Your task to perform on an android device: Open the map Image 0: 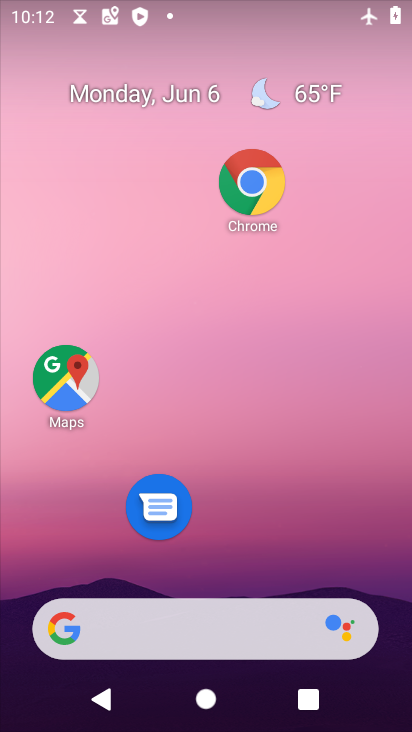
Step 0: click (74, 362)
Your task to perform on an android device: Open the map Image 1: 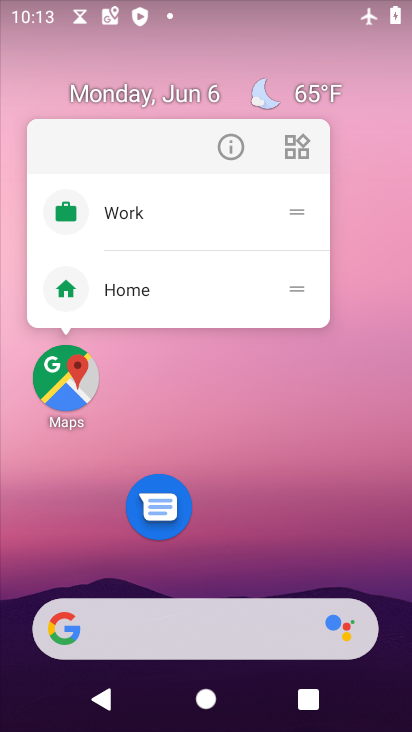
Step 1: click (62, 381)
Your task to perform on an android device: Open the map Image 2: 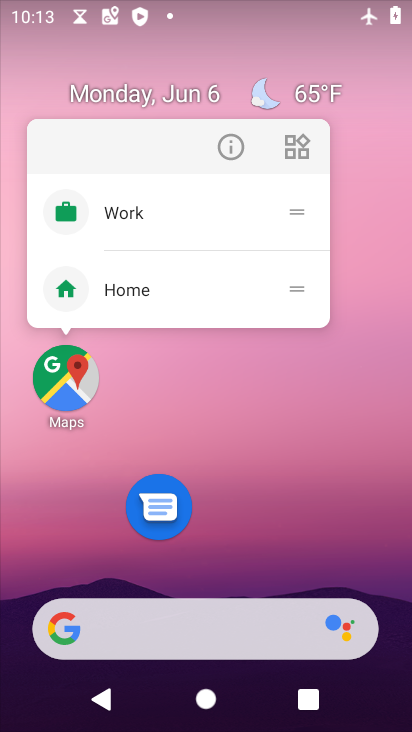
Step 2: click (55, 378)
Your task to perform on an android device: Open the map Image 3: 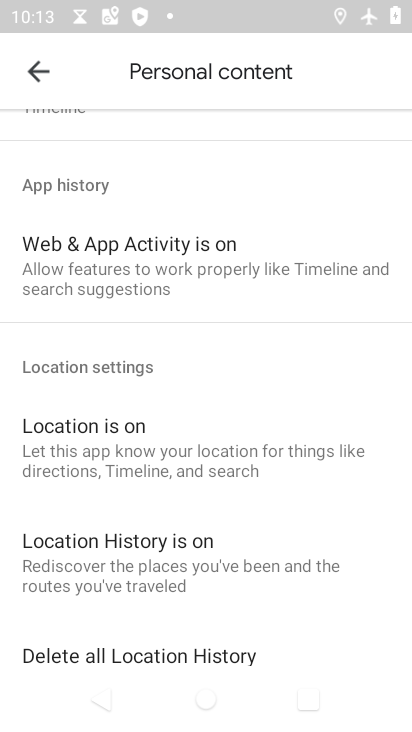
Step 3: click (42, 71)
Your task to perform on an android device: Open the map Image 4: 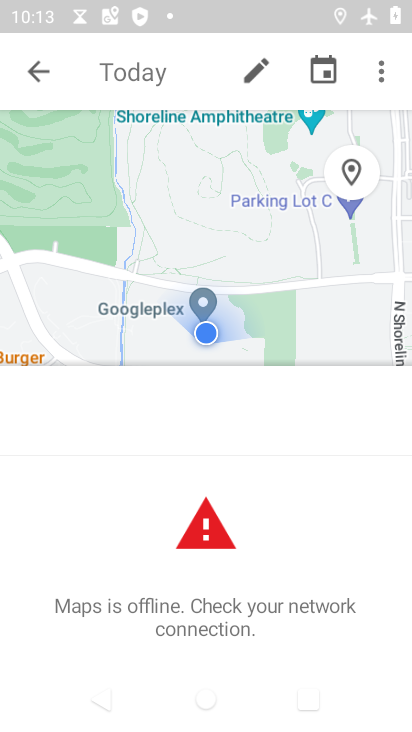
Step 4: click (38, 72)
Your task to perform on an android device: Open the map Image 5: 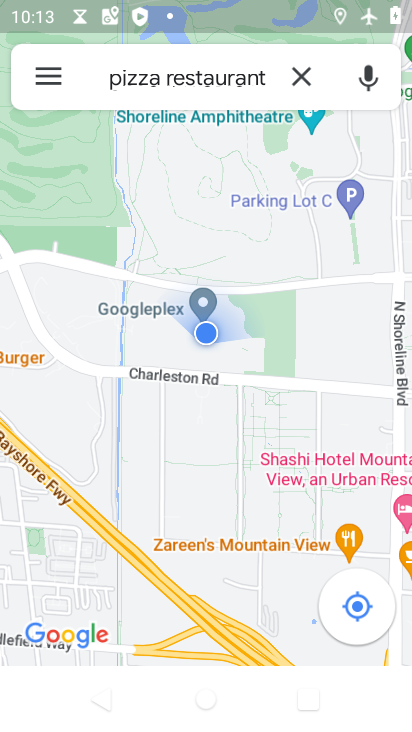
Step 5: task complete